Your task to perform on an android device: empty trash in the gmail app Image 0: 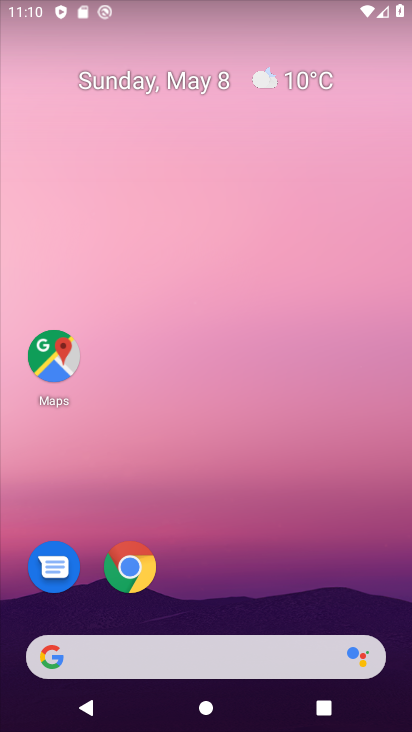
Step 0: drag from (233, 613) to (202, 240)
Your task to perform on an android device: empty trash in the gmail app Image 1: 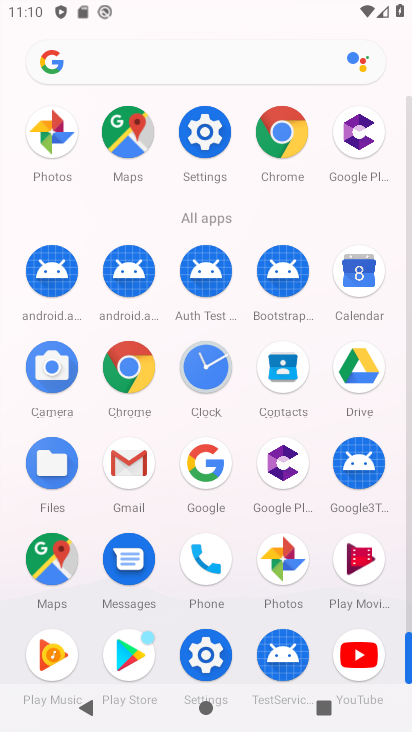
Step 1: click (143, 465)
Your task to perform on an android device: empty trash in the gmail app Image 2: 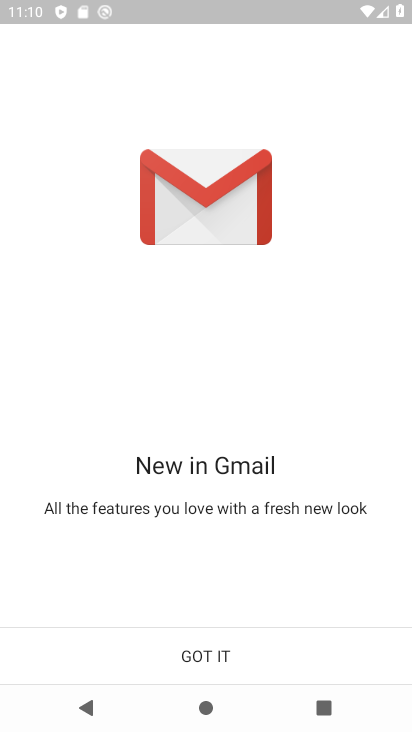
Step 2: click (230, 652)
Your task to perform on an android device: empty trash in the gmail app Image 3: 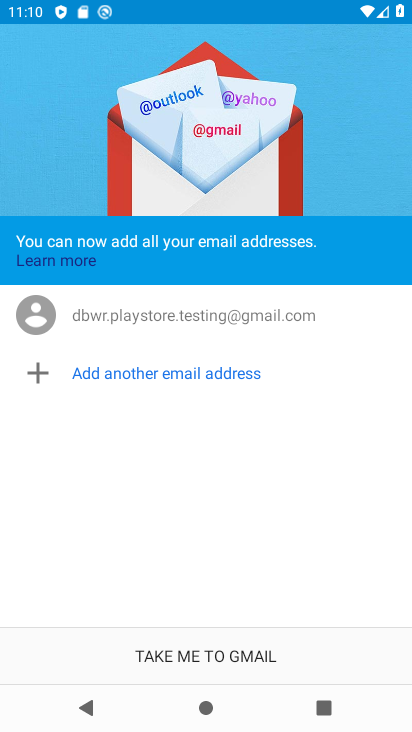
Step 3: click (228, 652)
Your task to perform on an android device: empty trash in the gmail app Image 4: 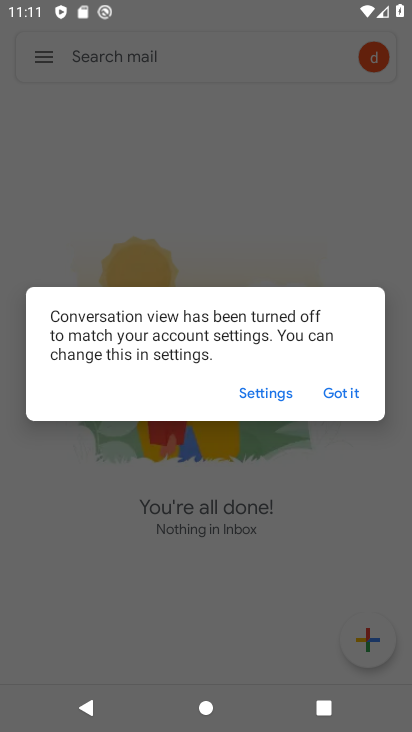
Step 4: click (344, 399)
Your task to perform on an android device: empty trash in the gmail app Image 5: 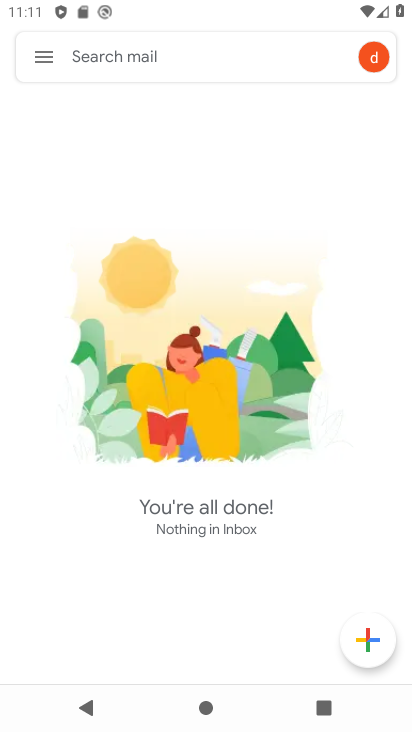
Step 5: press home button
Your task to perform on an android device: empty trash in the gmail app Image 6: 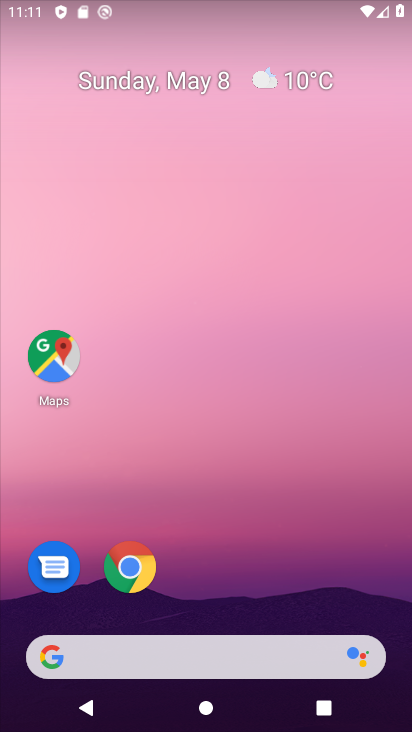
Step 6: drag from (230, 545) to (301, 52)
Your task to perform on an android device: empty trash in the gmail app Image 7: 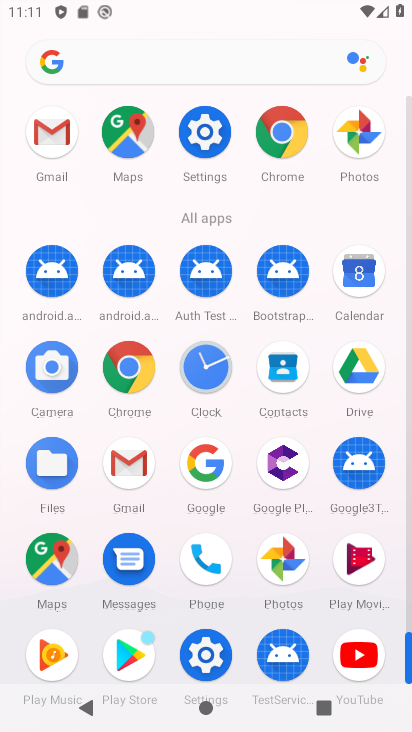
Step 7: click (139, 472)
Your task to perform on an android device: empty trash in the gmail app Image 8: 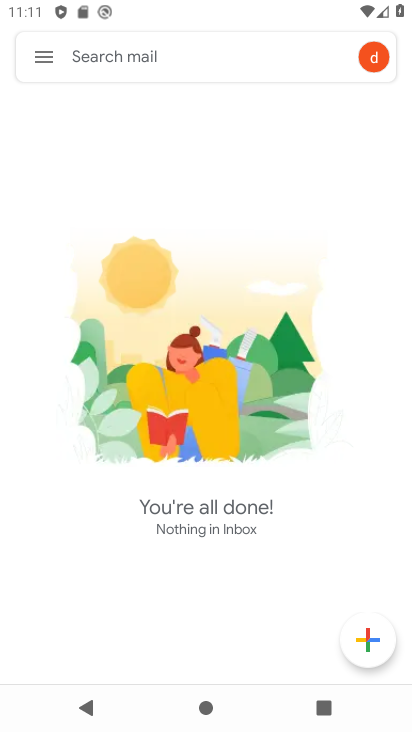
Step 8: click (40, 48)
Your task to perform on an android device: empty trash in the gmail app Image 9: 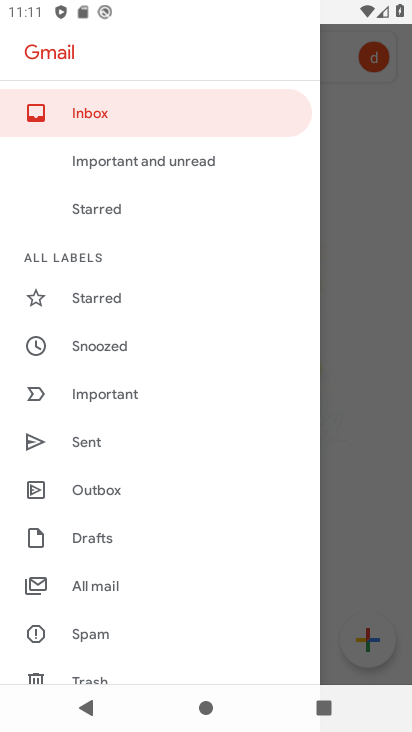
Step 9: drag from (96, 517) to (111, 269)
Your task to perform on an android device: empty trash in the gmail app Image 10: 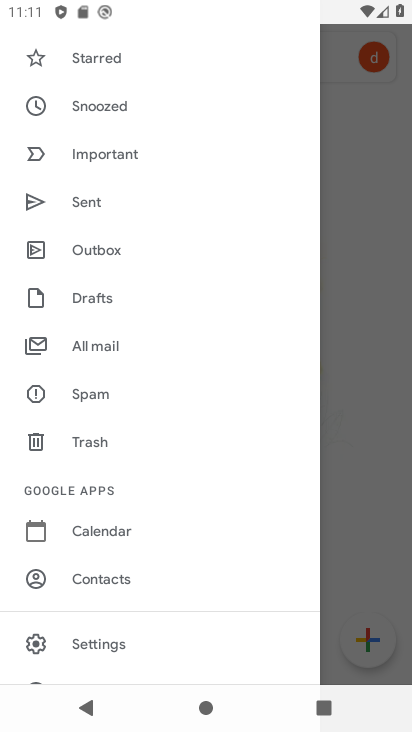
Step 10: click (124, 460)
Your task to perform on an android device: empty trash in the gmail app Image 11: 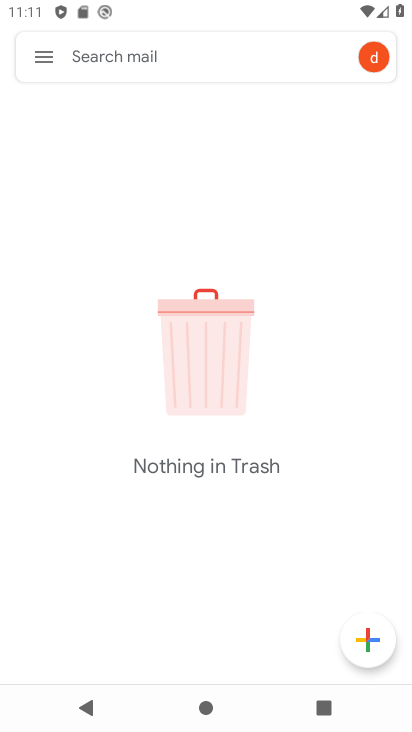
Step 11: task complete